Your task to perform on an android device: View the shopping cart on costco. Image 0: 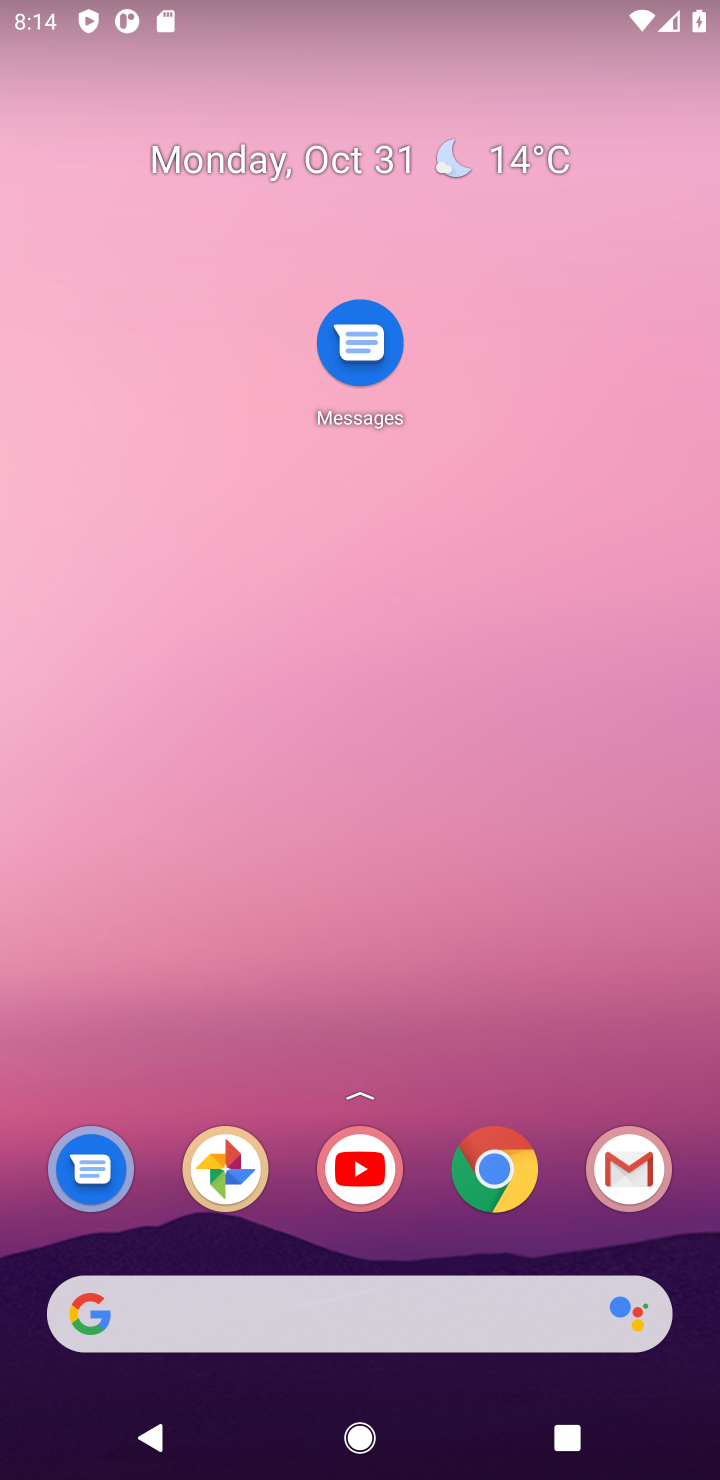
Step 0: drag from (175, 1294) to (132, 206)
Your task to perform on an android device: View the shopping cart on costco. Image 1: 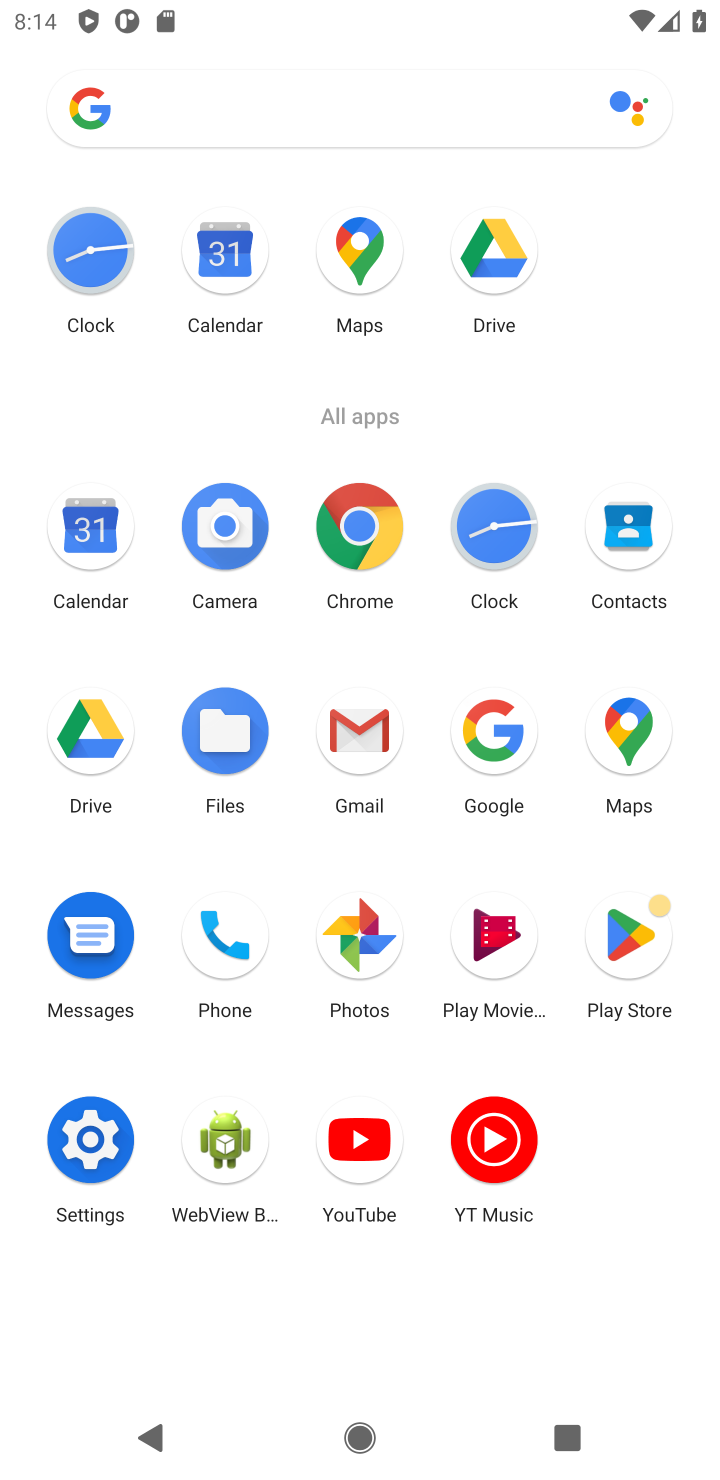
Step 1: click (470, 874)
Your task to perform on an android device: View the shopping cart on costco. Image 2: 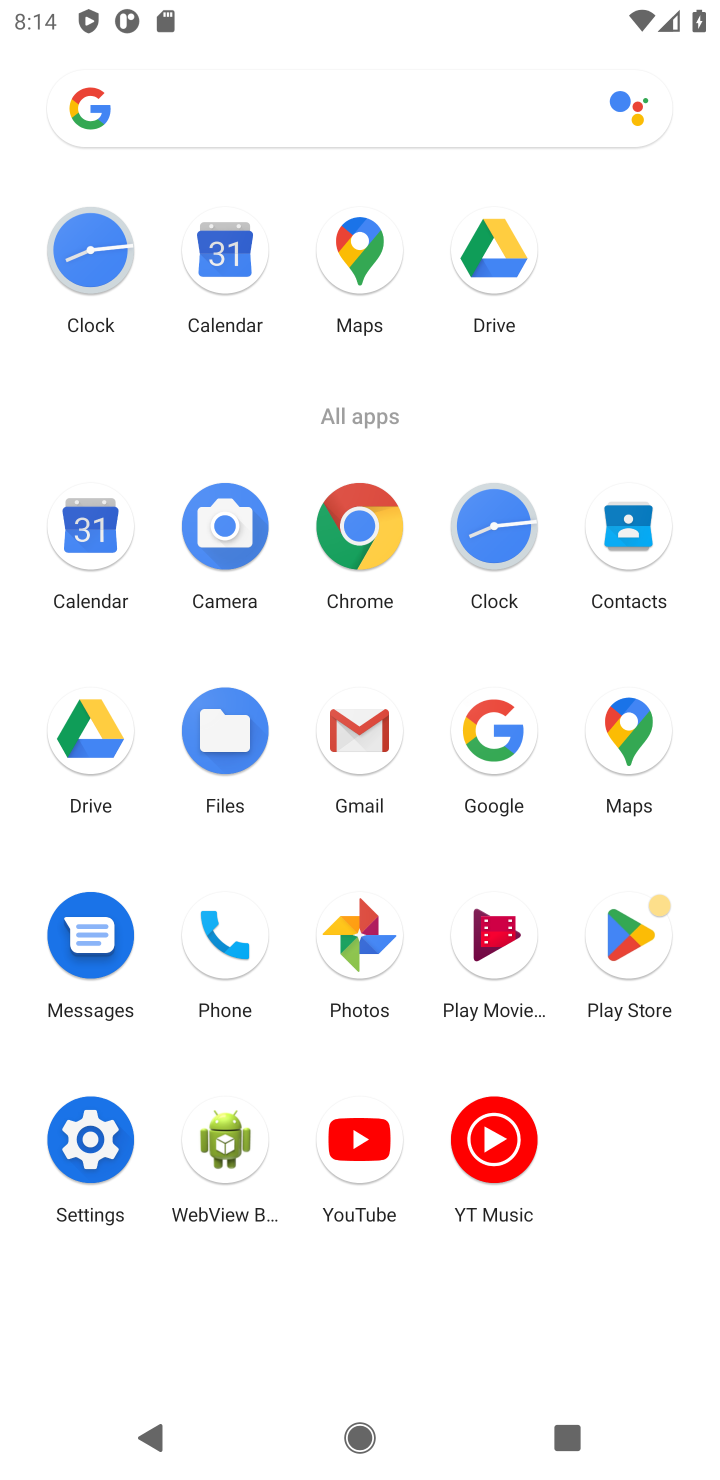
Step 2: click (488, 728)
Your task to perform on an android device: View the shopping cart on costco. Image 3: 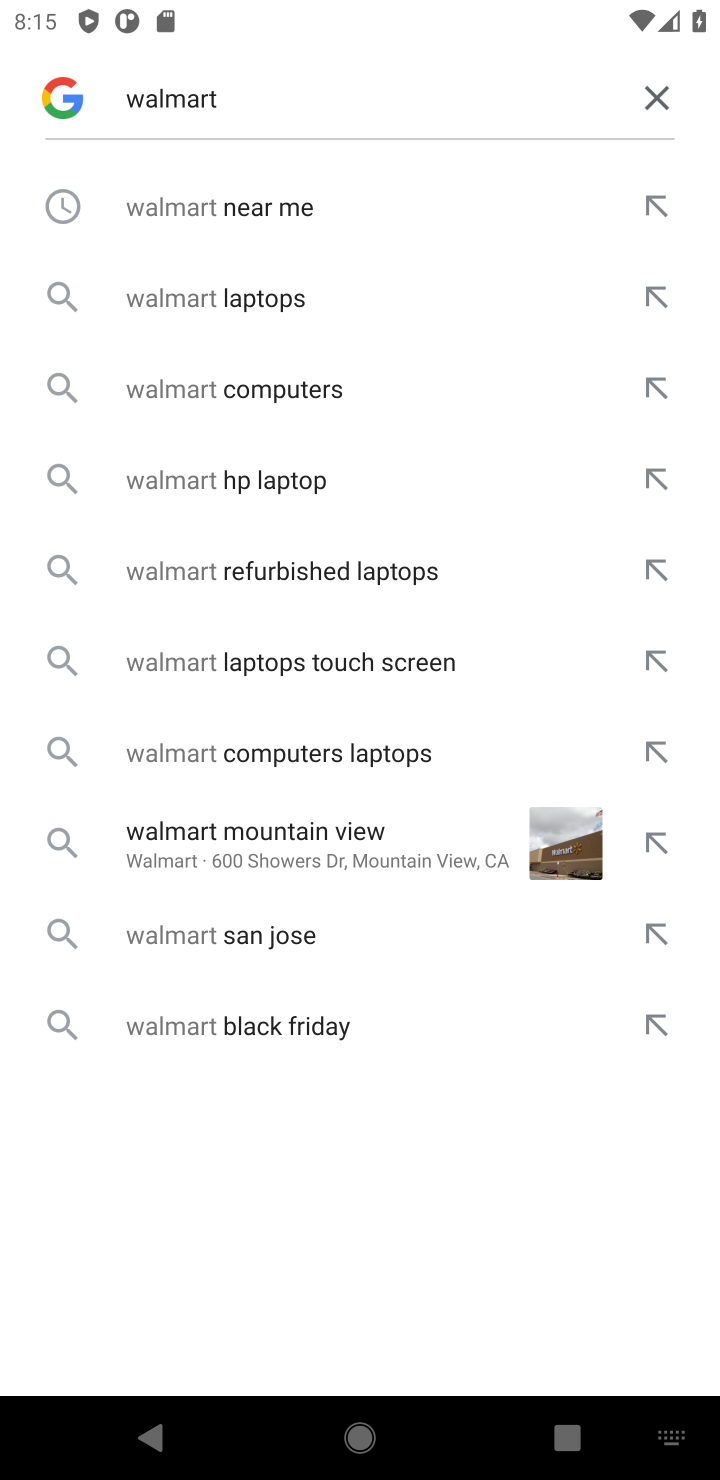
Step 3: click (656, 100)
Your task to perform on an android device: View the shopping cart on costco. Image 4: 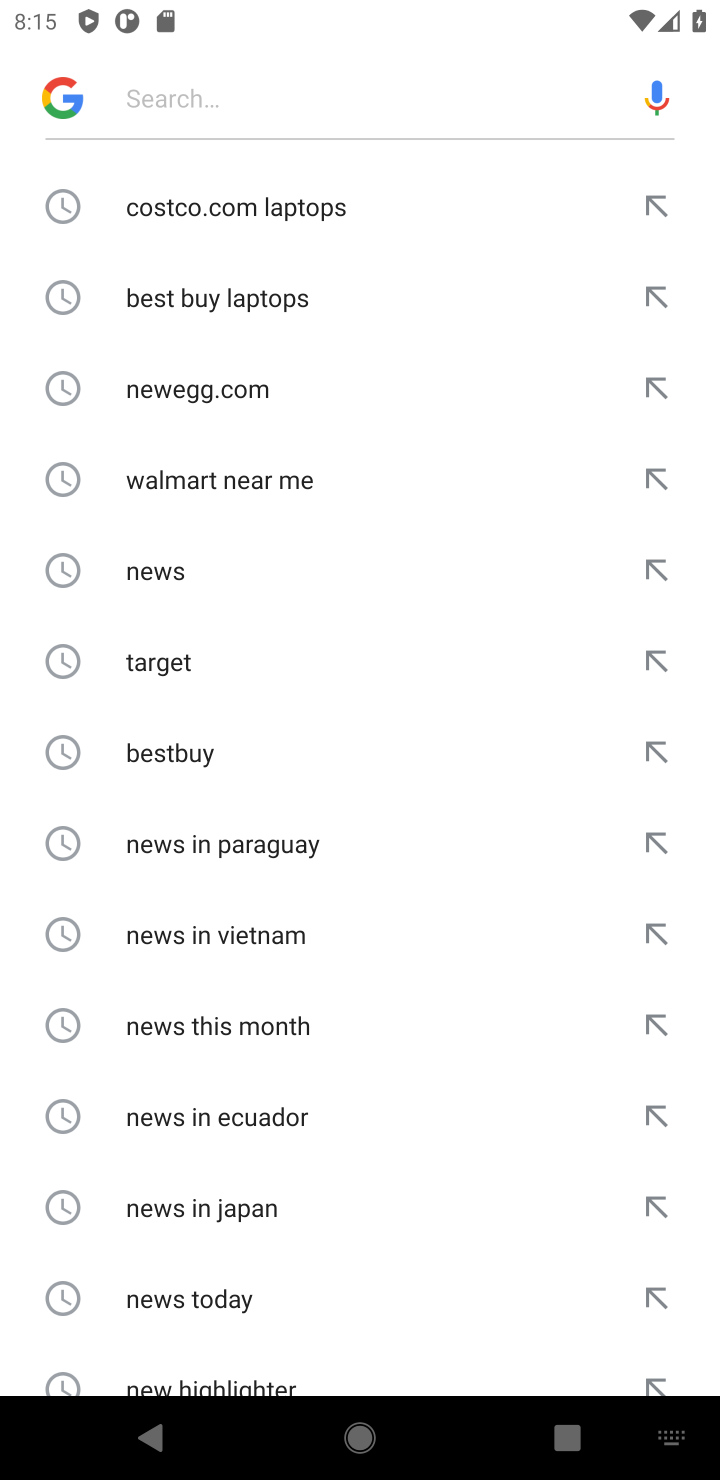
Step 4: click (178, 217)
Your task to perform on an android device: View the shopping cart on costco. Image 5: 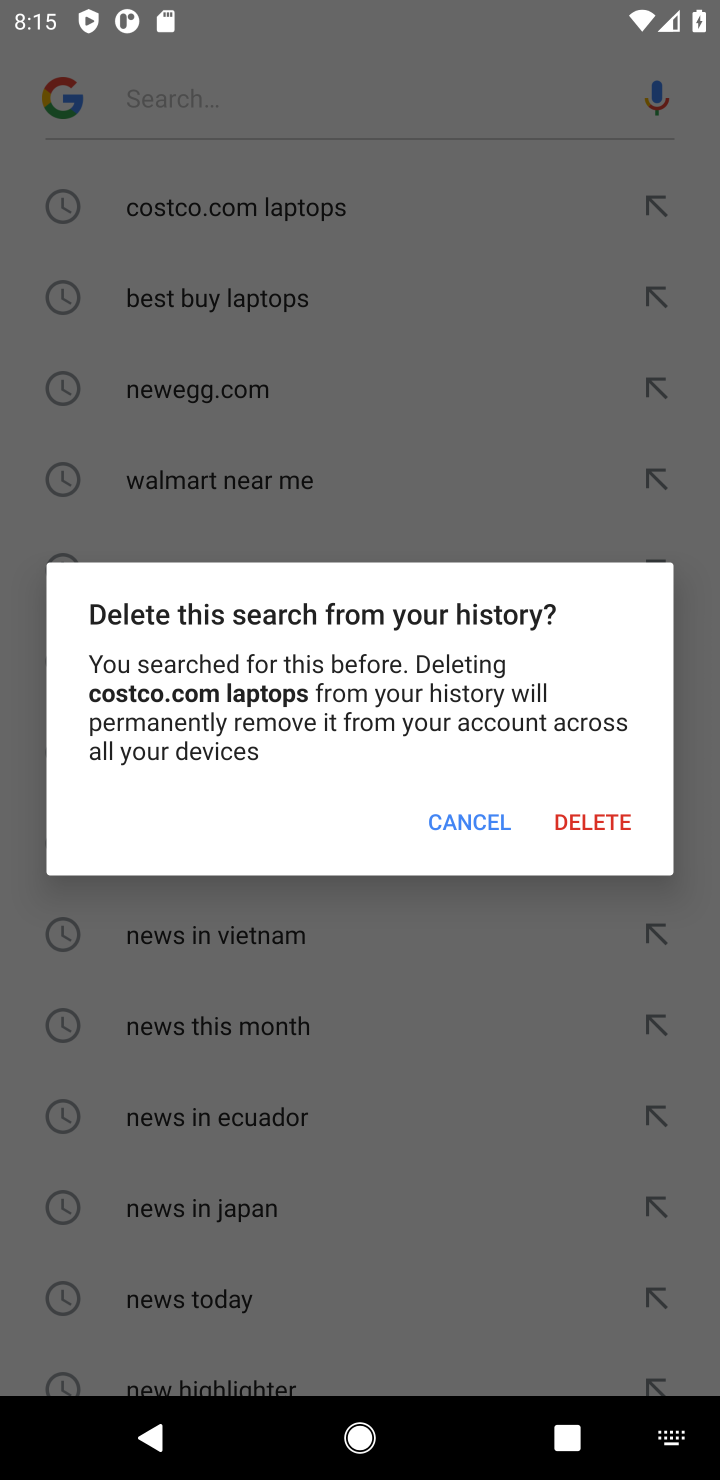
Step 5: click (469, 830)
Your task to perform on an android device: View the shopping cart on costco. Image 6: 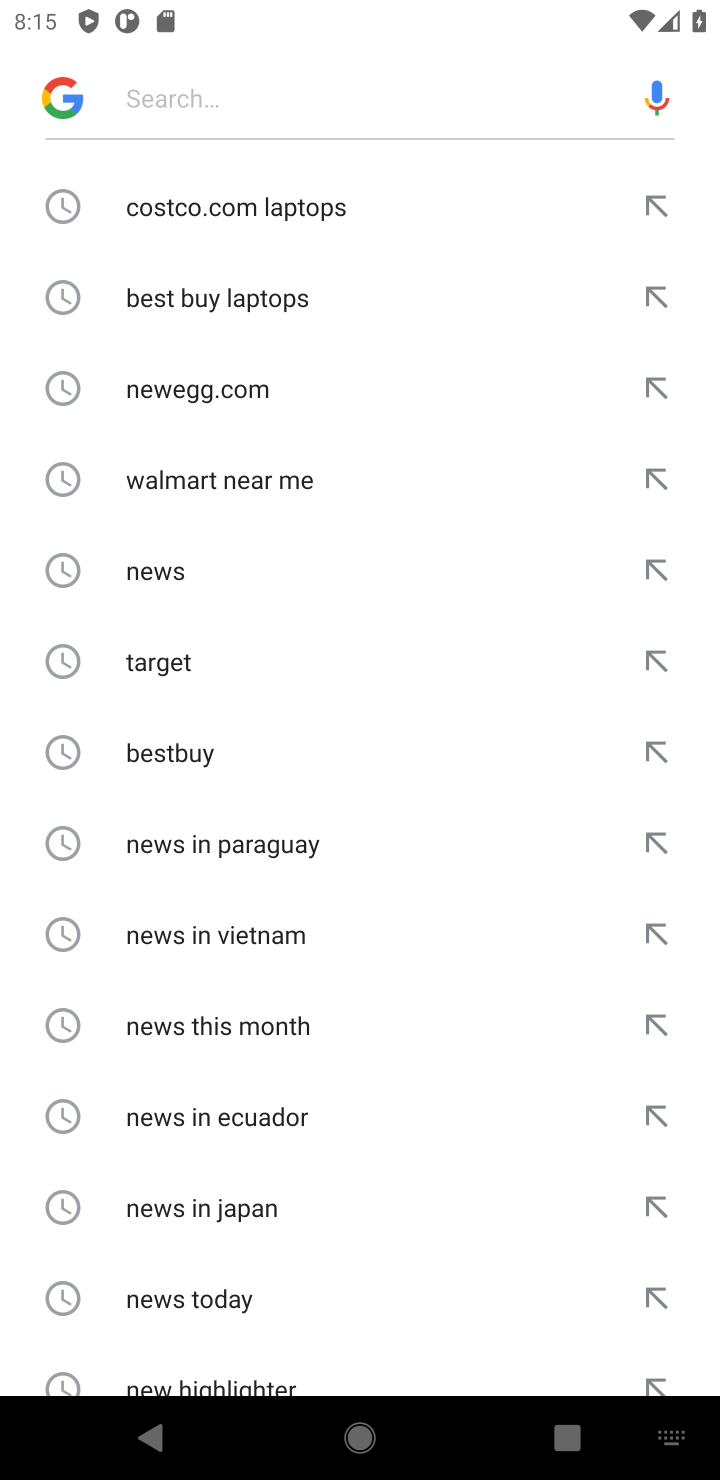
Step 6: drag from (275, 1207) to (277, 456)
Your task to perform on an android device: View the shopping cart on costco. Image 7: 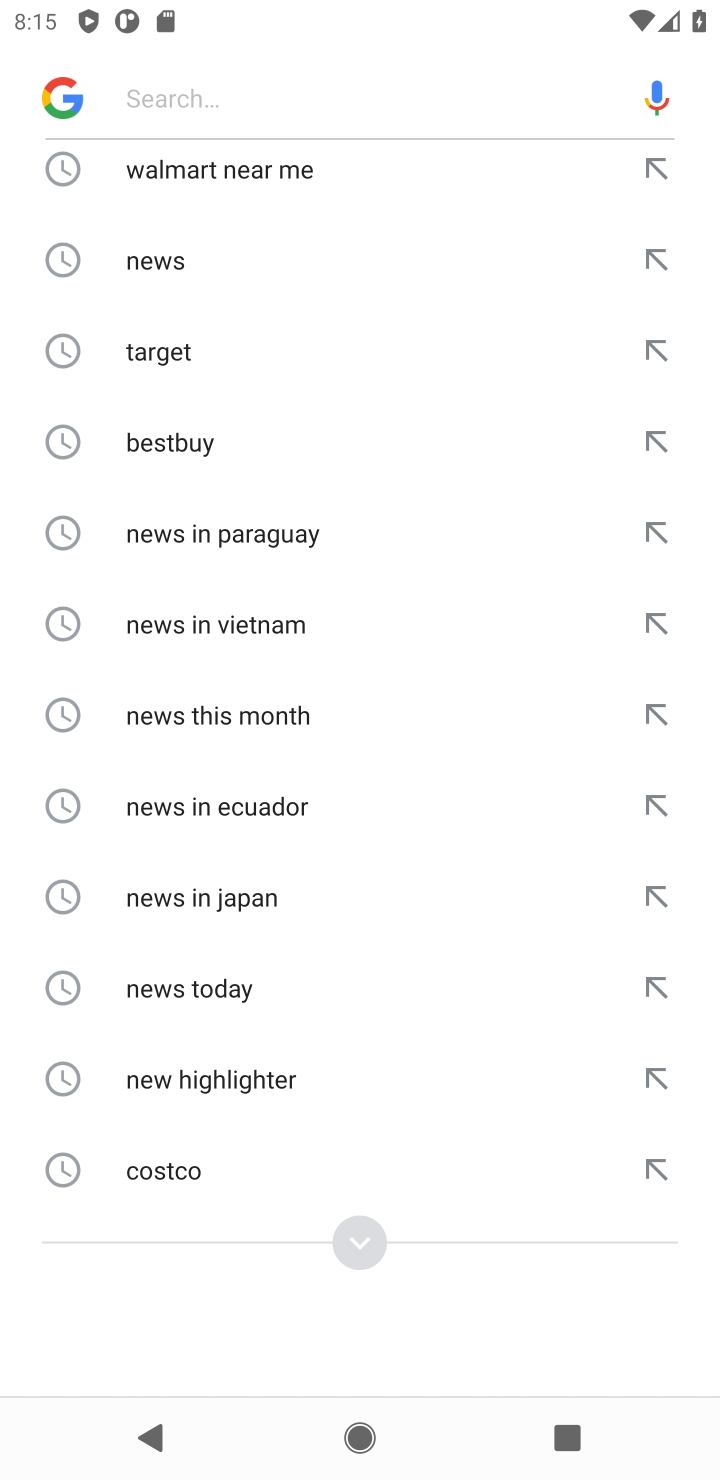
Step 7: click (162, 1186)
Your task to perform on an android device: View the shopping cart on costco. Image 8: 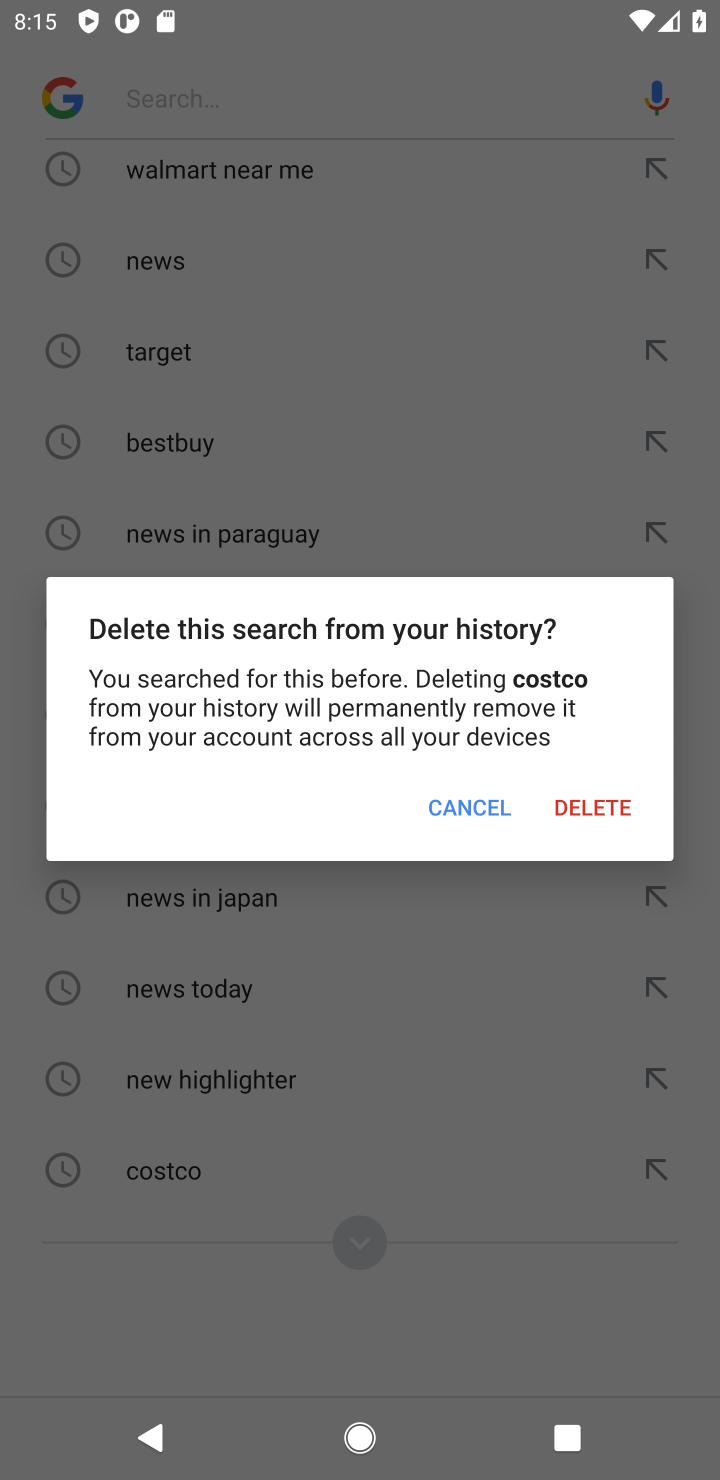
Step 8: click (442, 825)
Your task to perform on an android device: View the shopping cart on costco. Image 9: 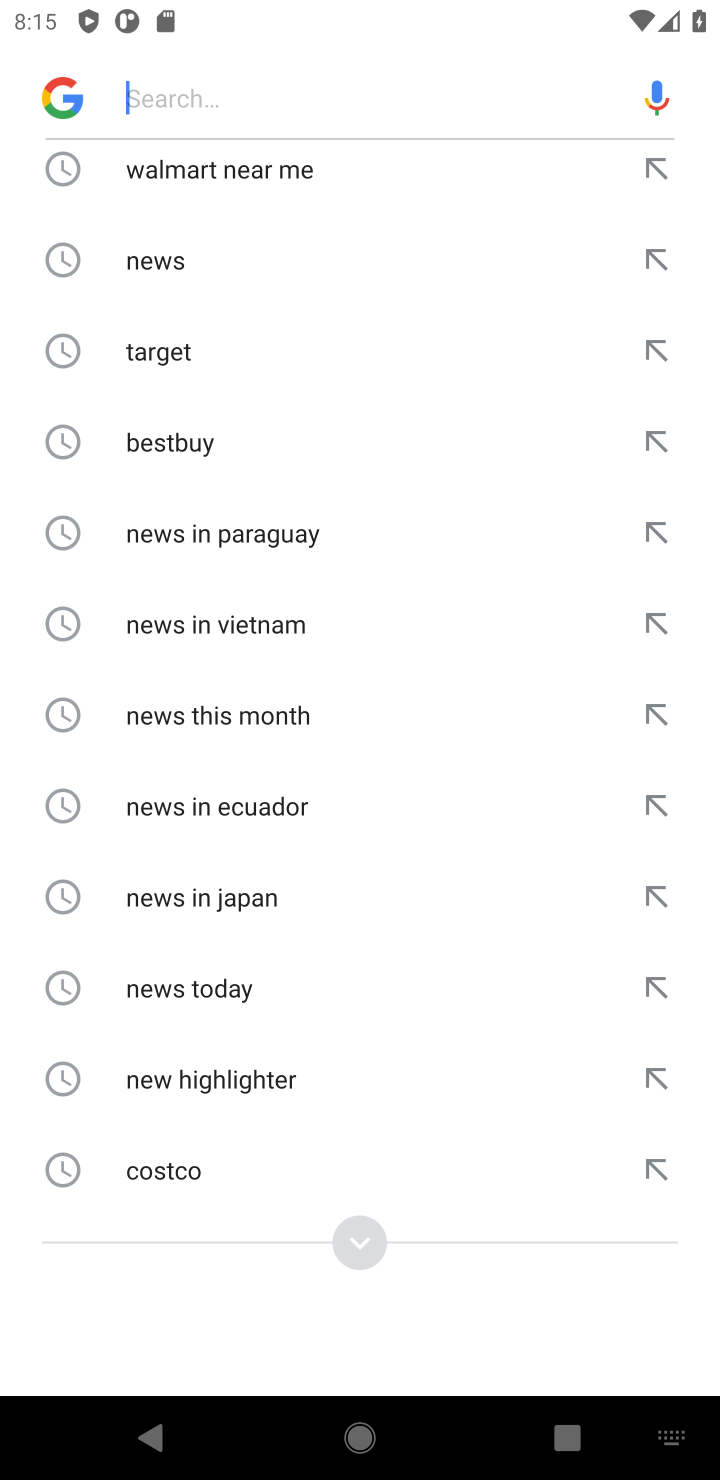
Step 9: drag from (378, 438) to (342, 1450)
Your task to perform on an android device: View the shopping cart on costco. Image 10: 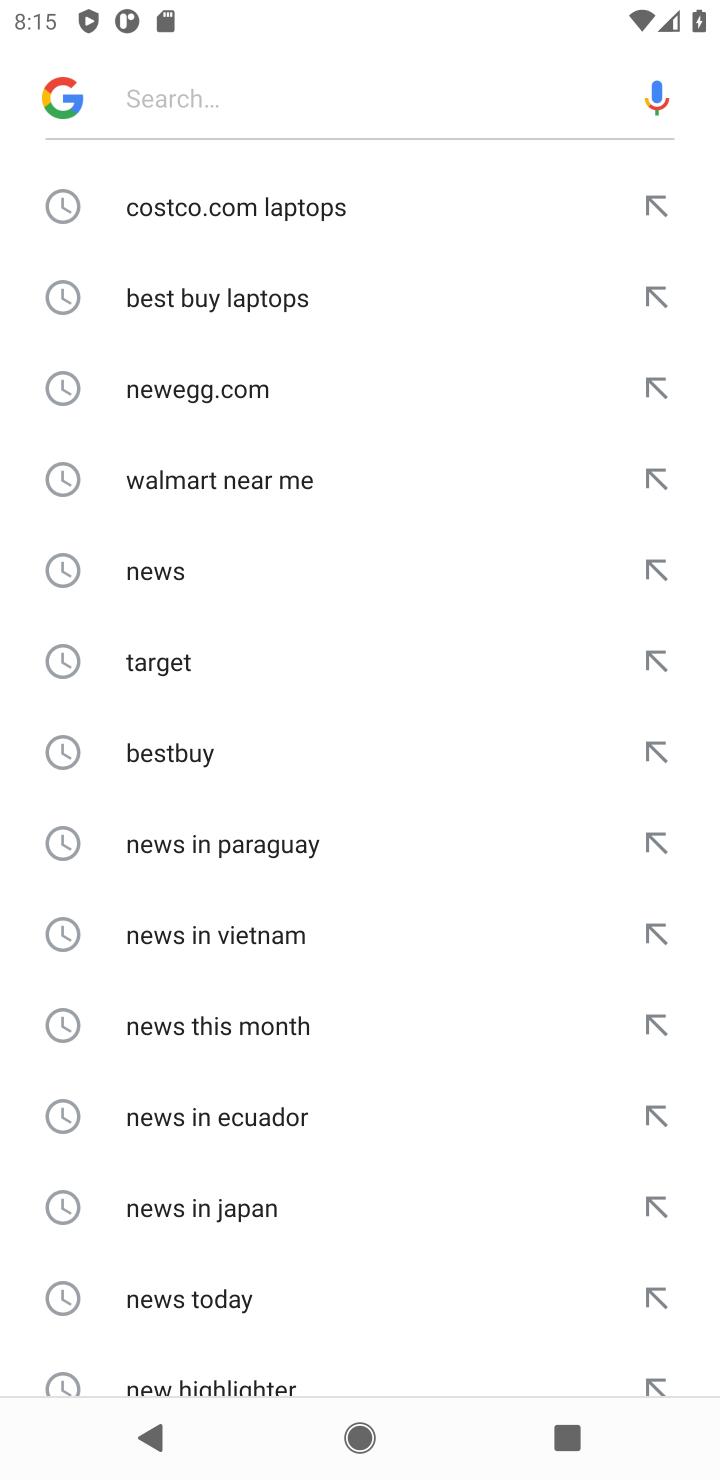
Step 10: click (398, 103)
Your task to perform on an android device: View the shopping cart on costco. Image 11: 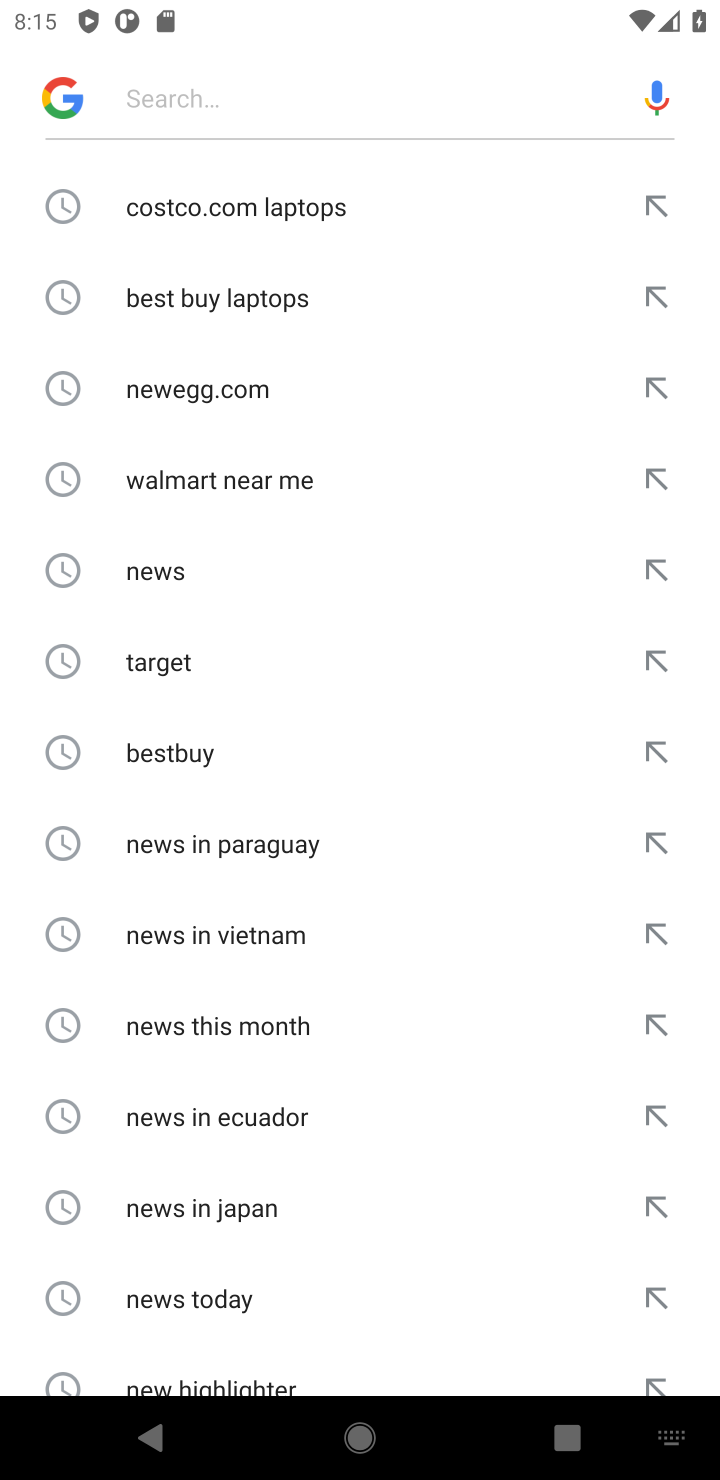
Step 11: type "costco "
Your task to perform on an android device: View the shopping cart on costco. Image 12: 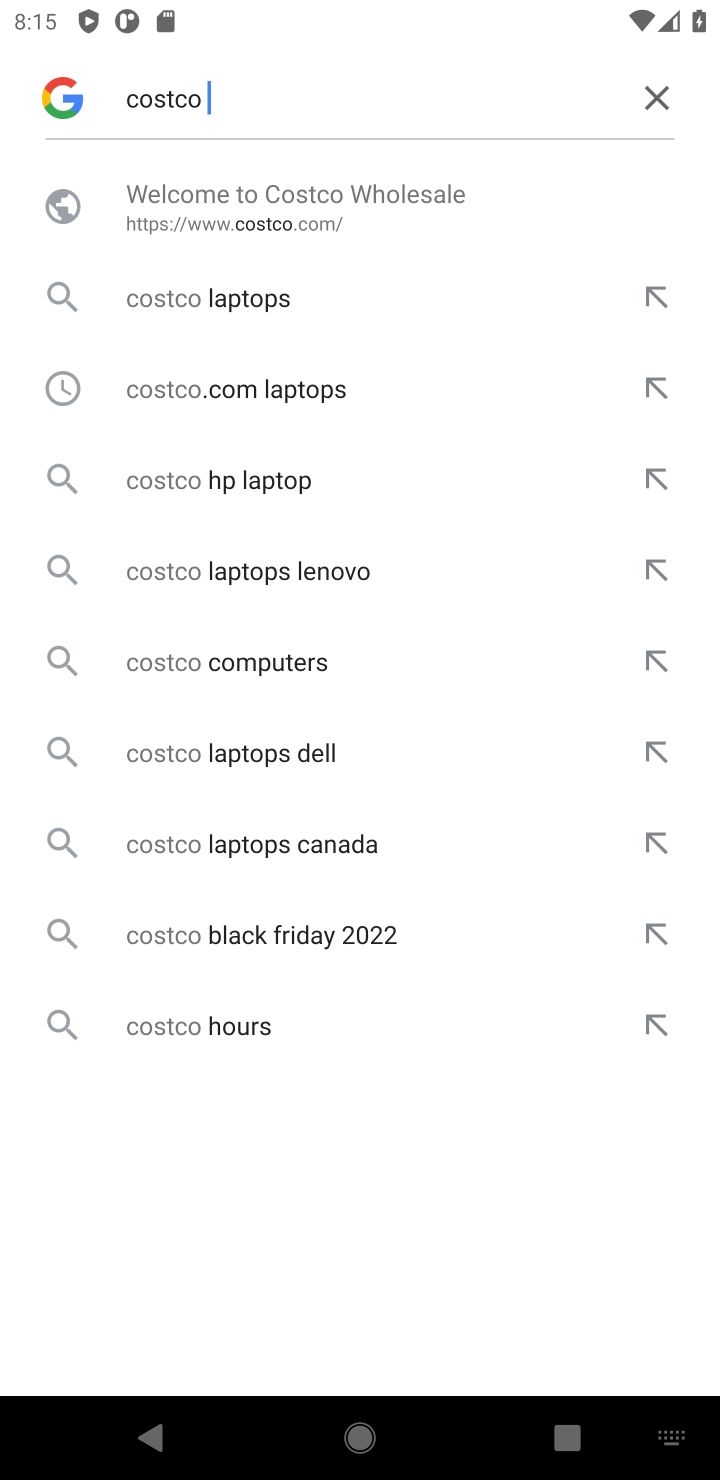
Step 12: click (293, 189)
Your task to perform on an android device: View the shopping cart on costco. Image 13: 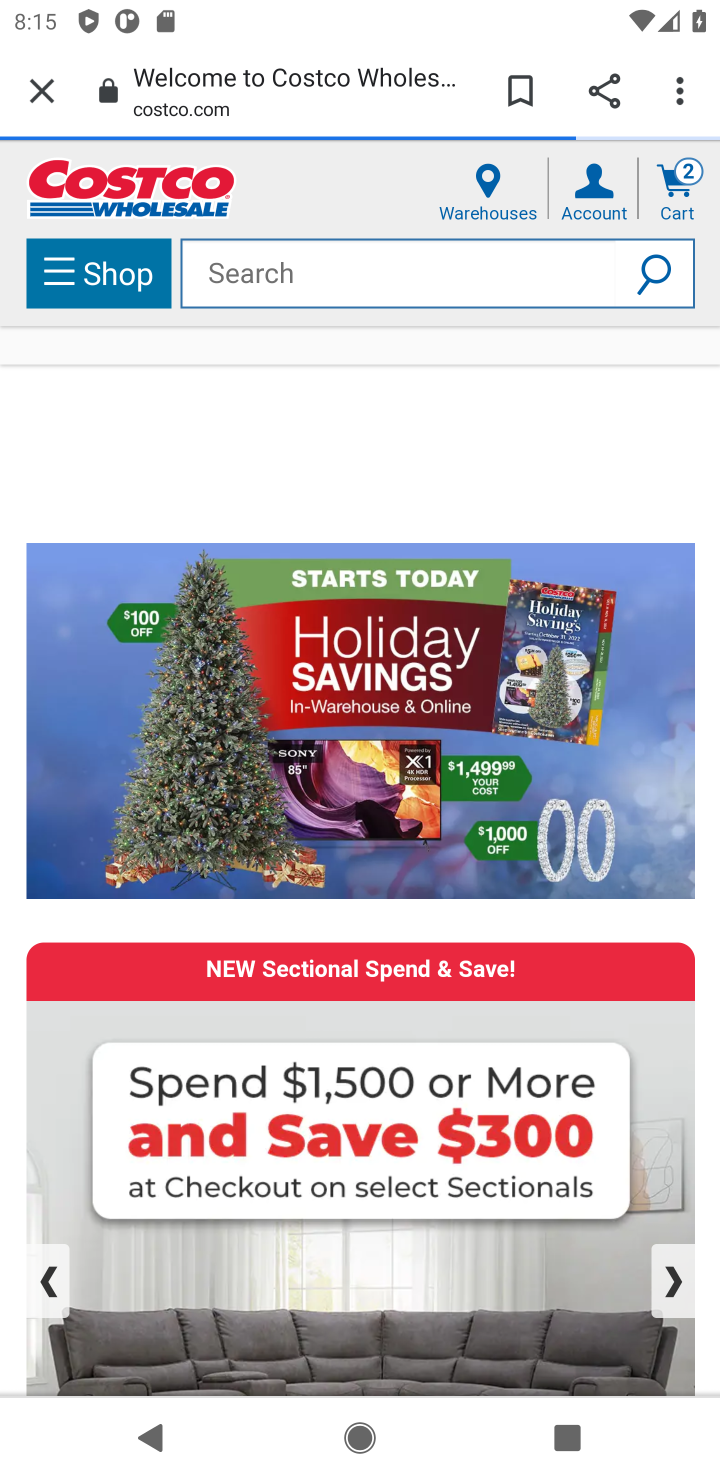
Step 13: click (675, 171)
Your task to perform on an android device: View the shopping cart on costco. Image 14: 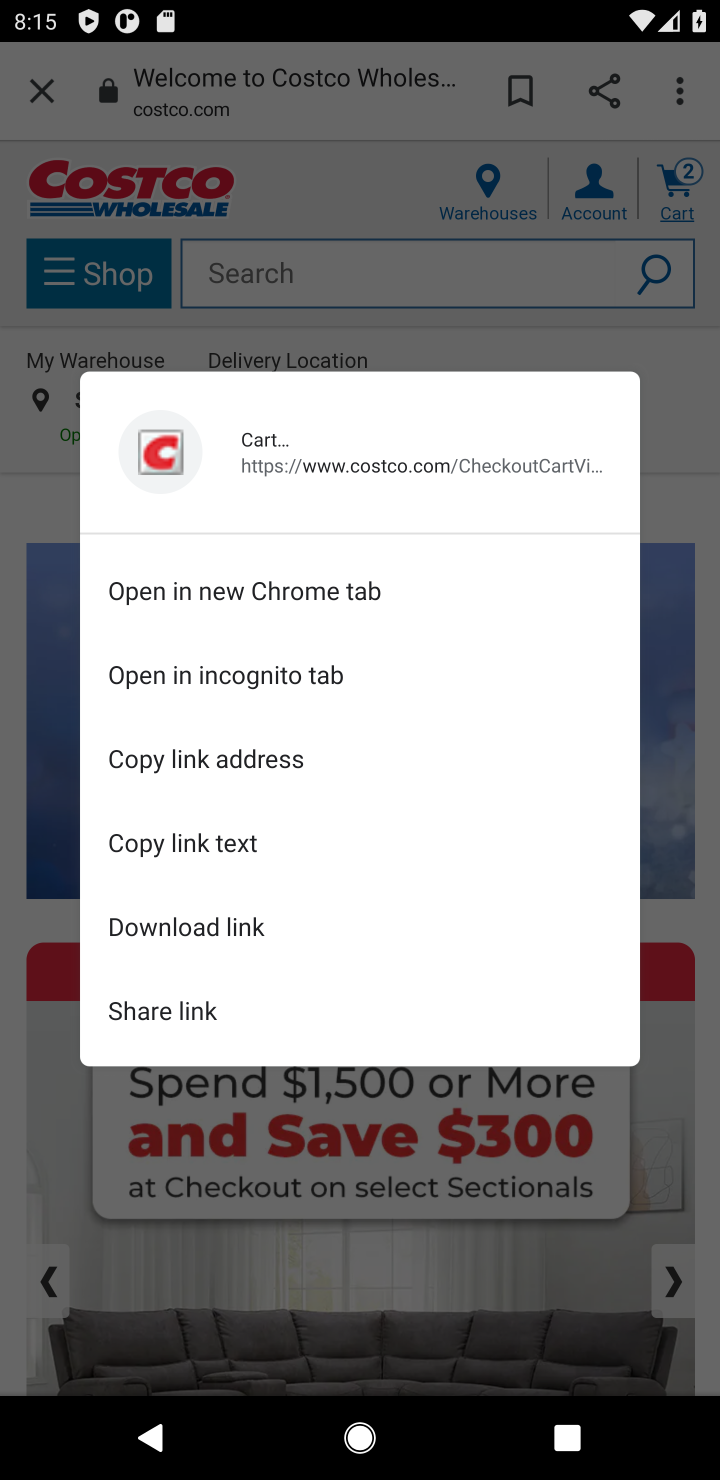
Step 14: click (329, 1144)
Your task to perform on an android device: View the shopping cart on costco. Image 15: 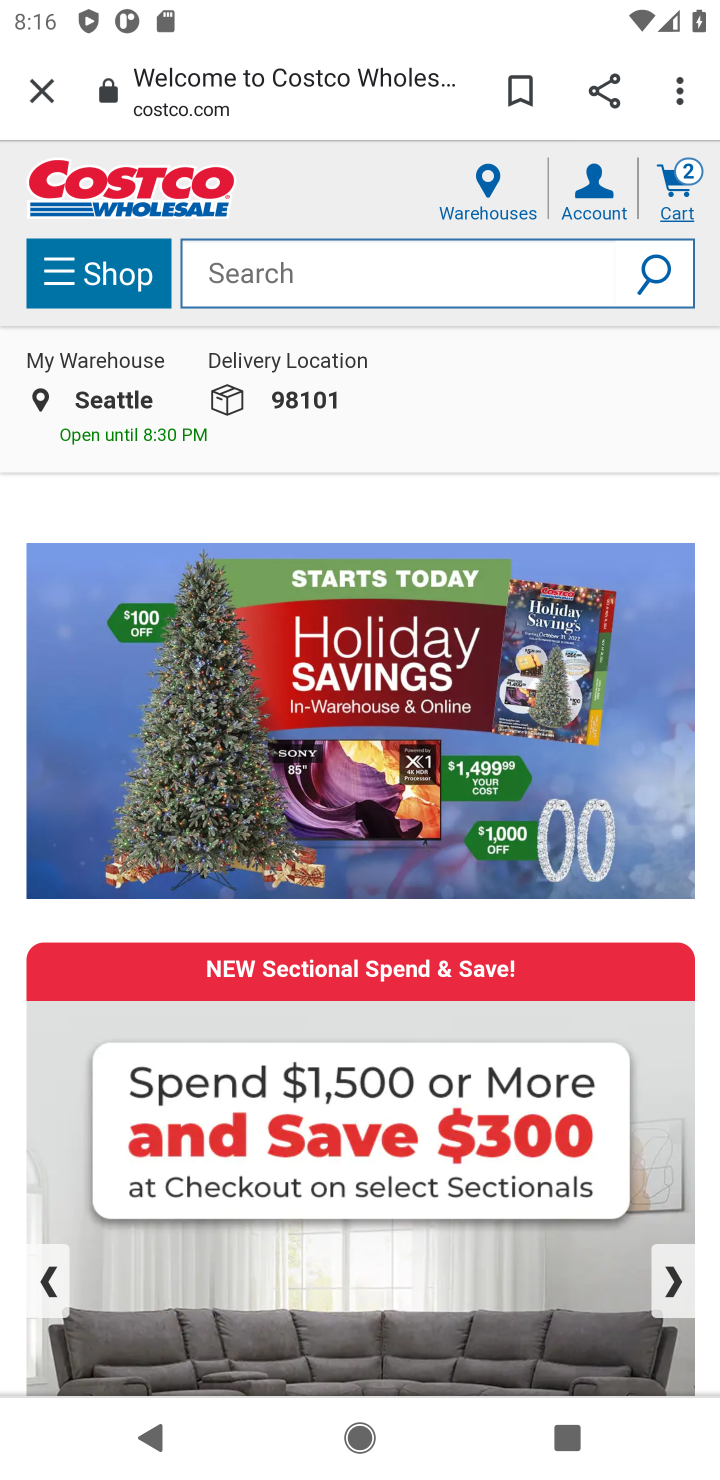
Step 15: click (695, 178)
Your task to perform on an android device: View the shopping cart on costco. Image 16: 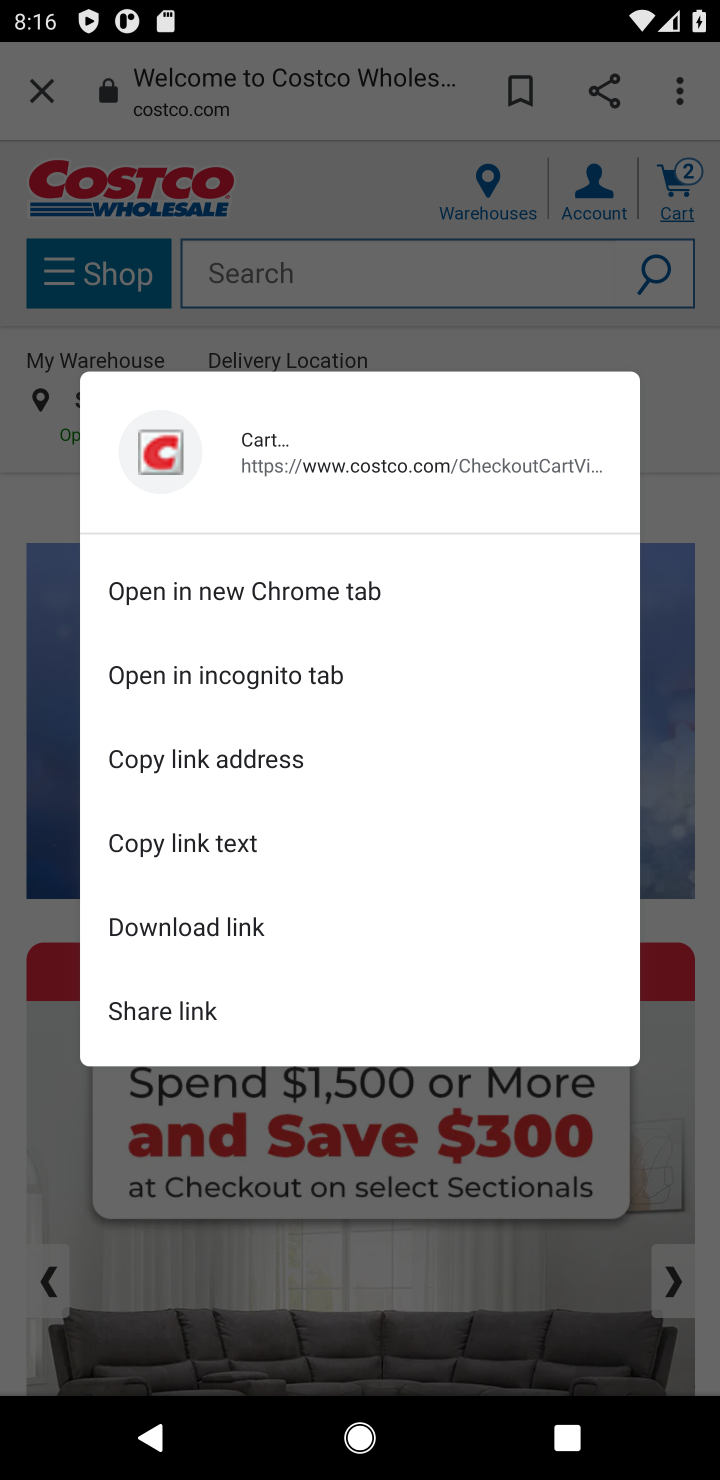
Step 16: click (695, 202)
Your task to perform on an android device: View the shopping cart on costco. Image 17: 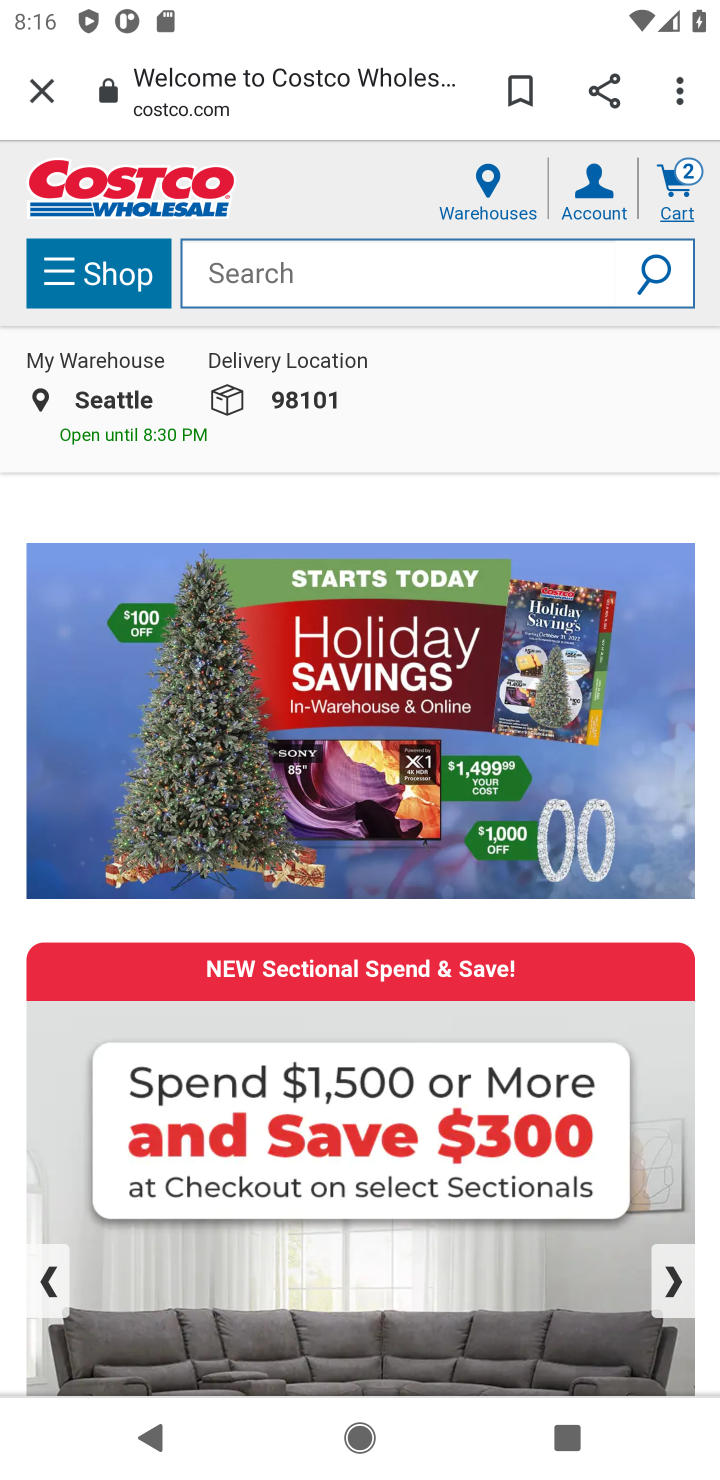
Step 17: click (684, 190)
Your task to perform on an android device: View the shopping cart on costco. Image 18: 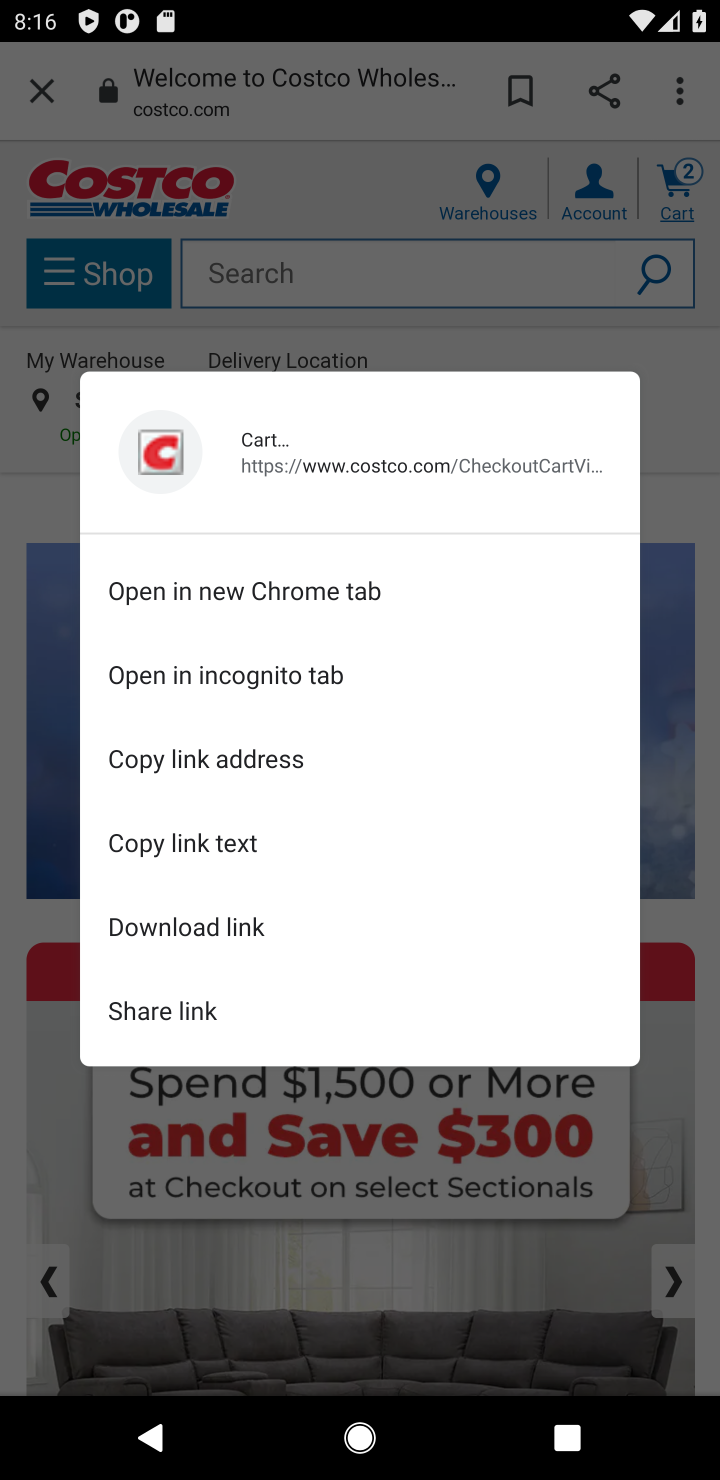
Step 18: click (654, 164)
Your task to perform on an android device: View the shopping cart on costco. Image 19: 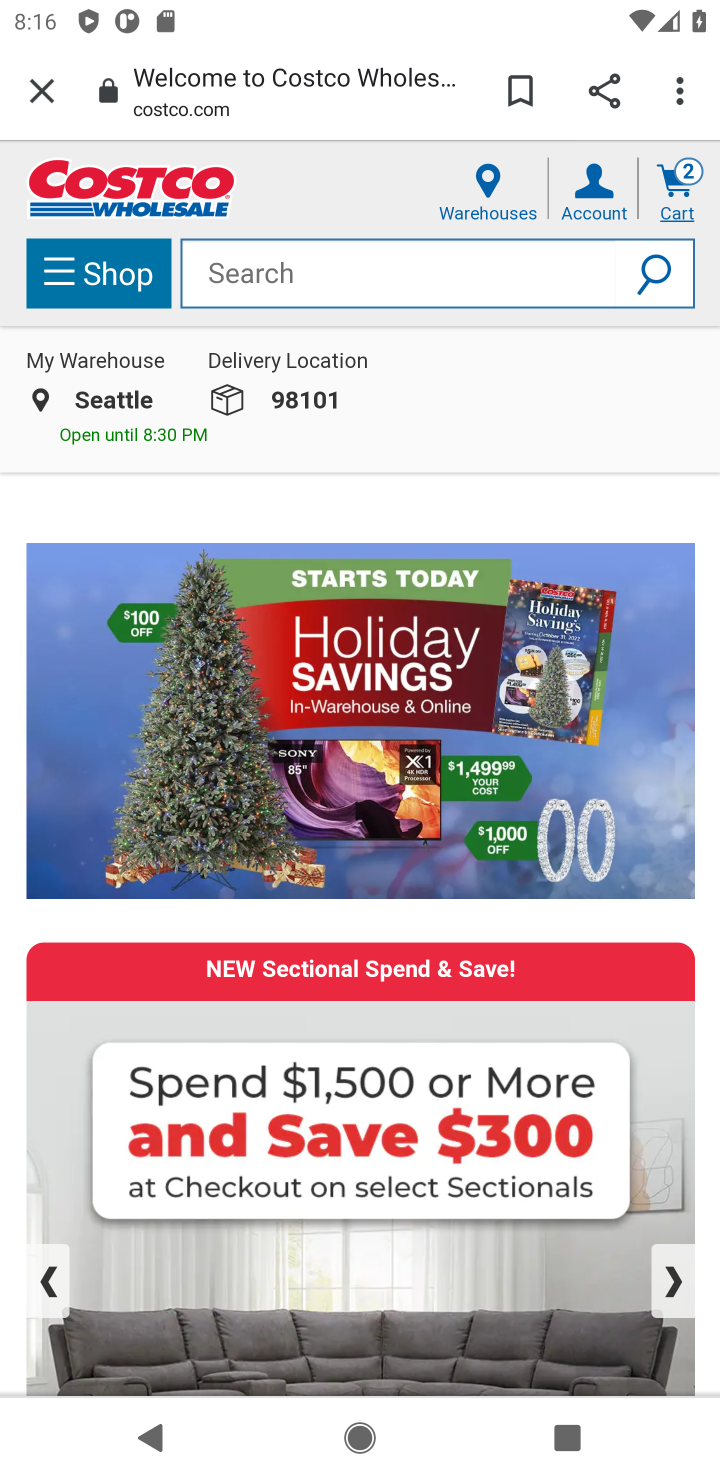
Step 19: click (684, 187)
Your task to perform on an android device: View the shopping cart on costco. Image 20: 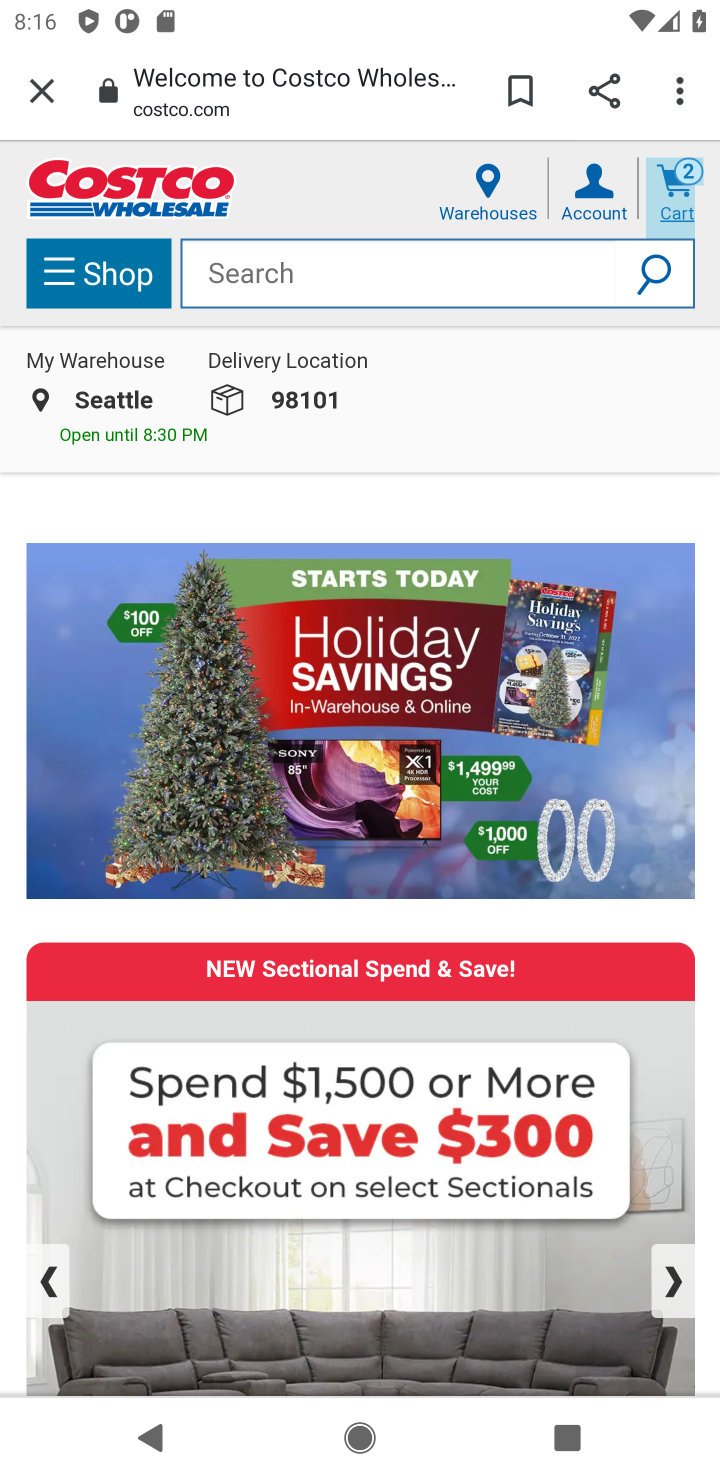
Step 20: click (684, 187)
Your task to perform on an android device: View the shopping cart on costco. Image 21: 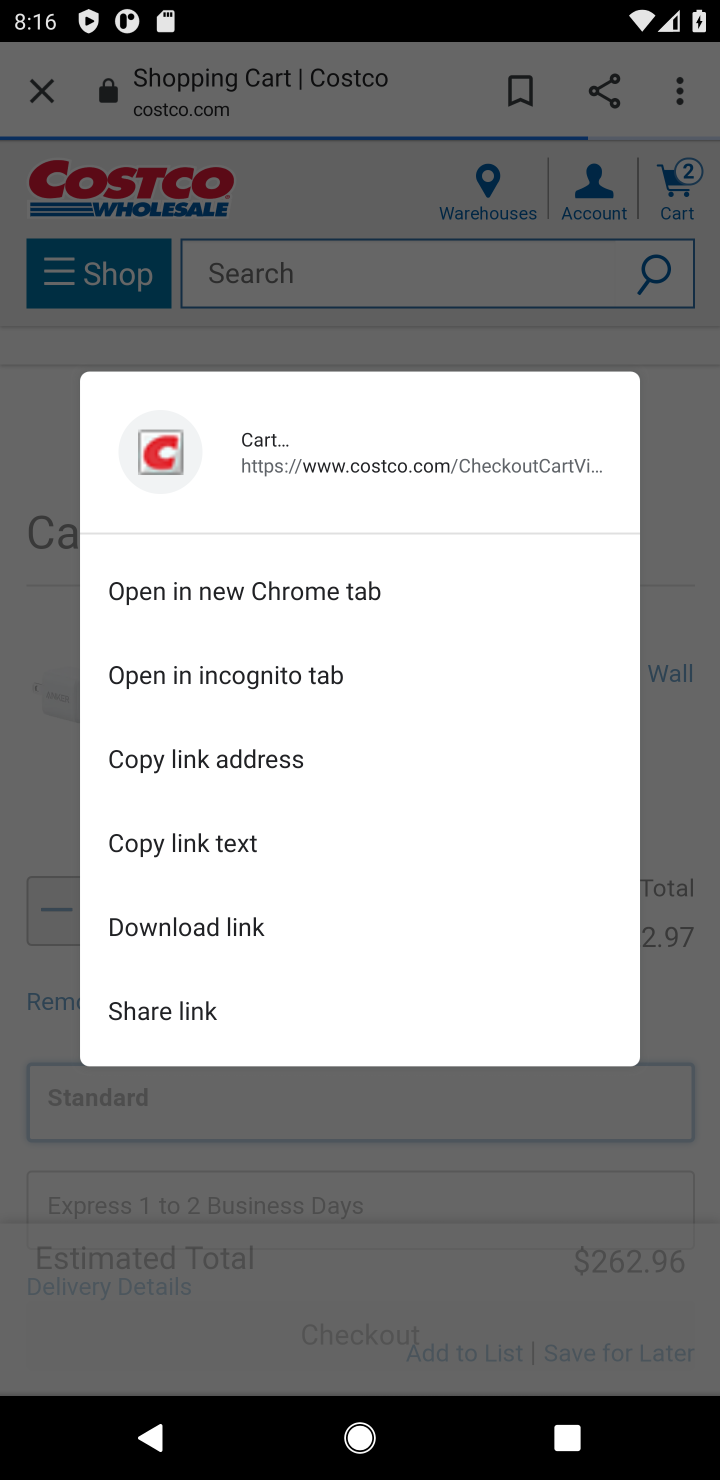
Step 21: click (1, 629)
Your task to perform on an android device: View the shopping cart on costco. Image 22: 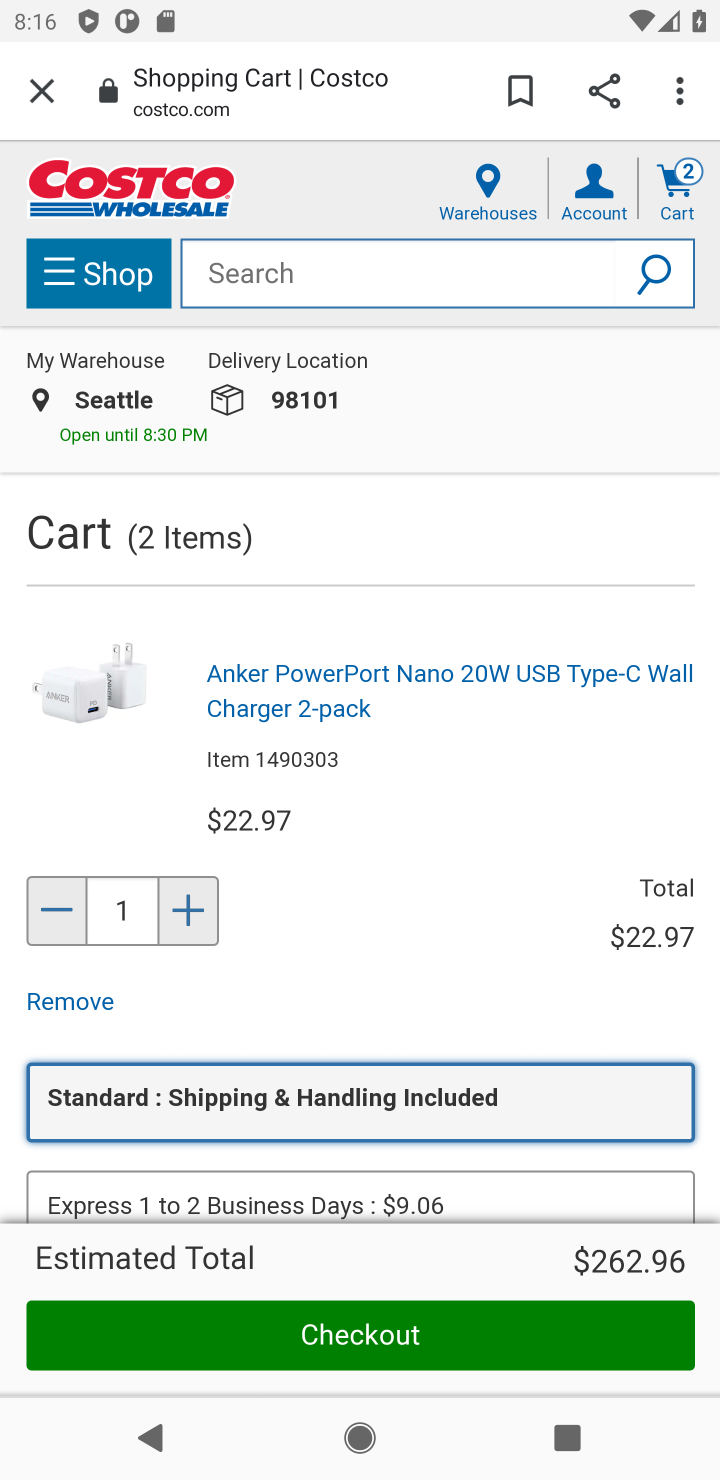
Step 22: click (63, 591)
Your task to perform on an android device: View the shopping cart on costco. Image 23: 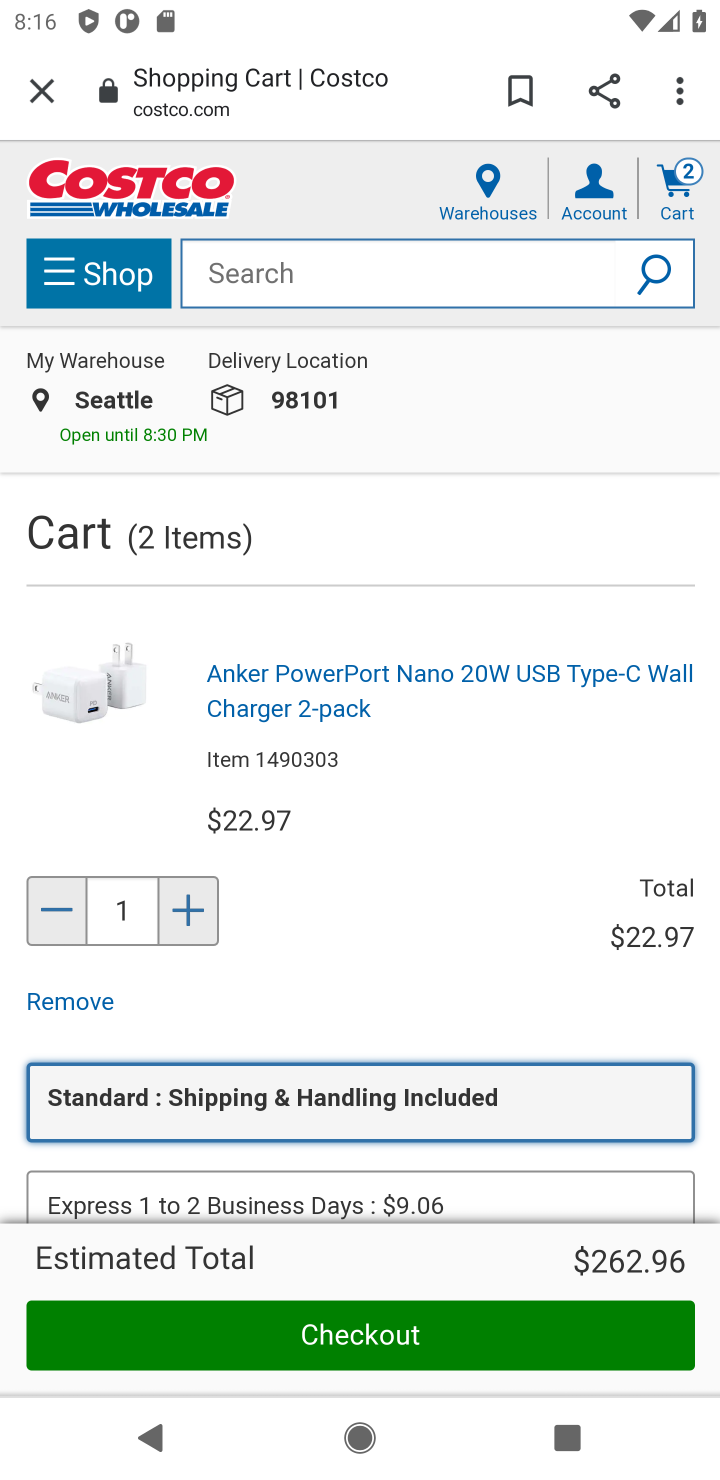
Step 23: task complete